Your task to perform on an android device: visit the assistant section in the google photos Image 0: 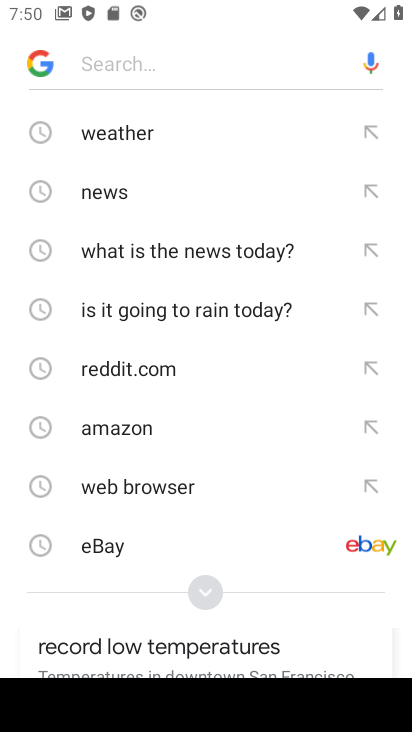
Step 0: press home button
Your task to perform on an android device: visit the assistant section in the google photos Image 1: 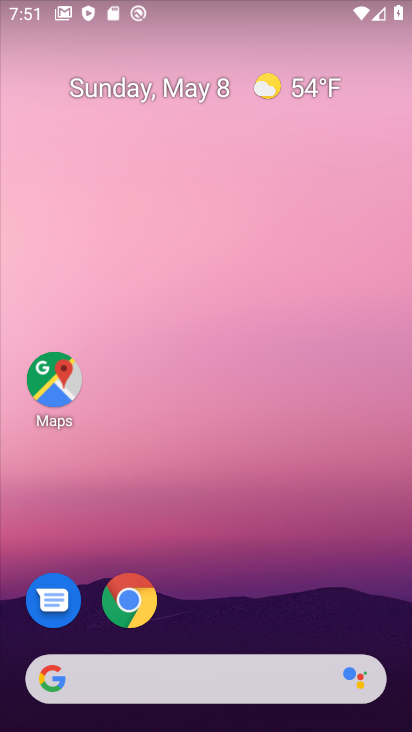
Step 1: drag from (192, 630) to (201, 37)
Your task to perform on an android device: visit the assistant section in the google photos Image 2: 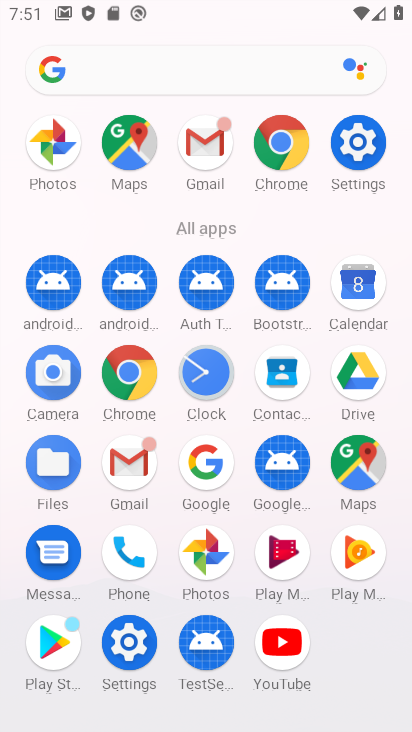
Step 2: click (39, 118)
Your task to perform on an android device: visit the assistant section in the google photos Image 3: 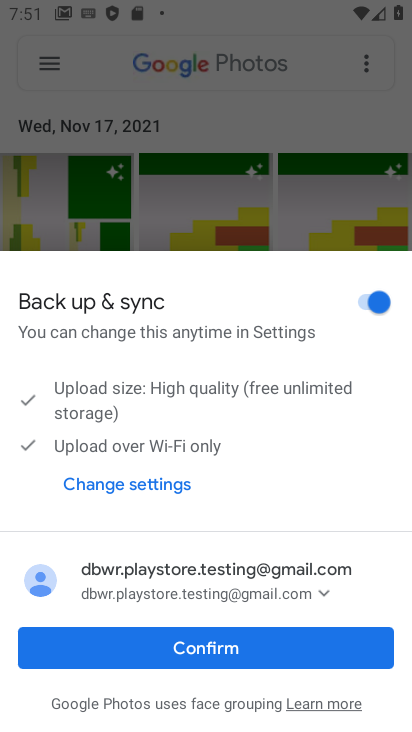
Step 3: click (260, 652)
Your task to perform on an android device: visit the assistant section in the google photos Image 4: 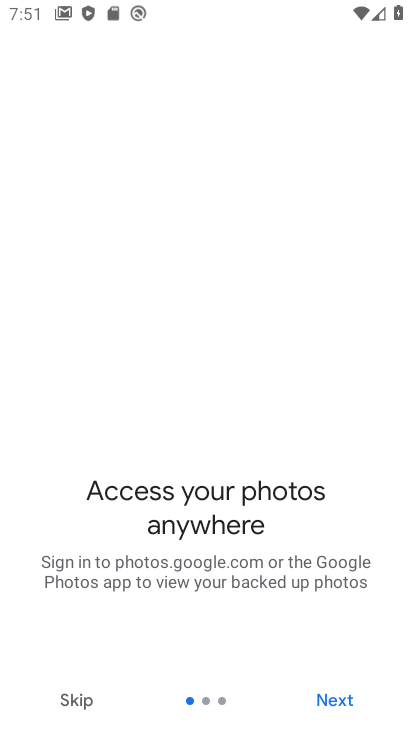
Step 4: click (315, 713)
Your task to perform on an android device: visit the assistant section in the google photos Image 5: 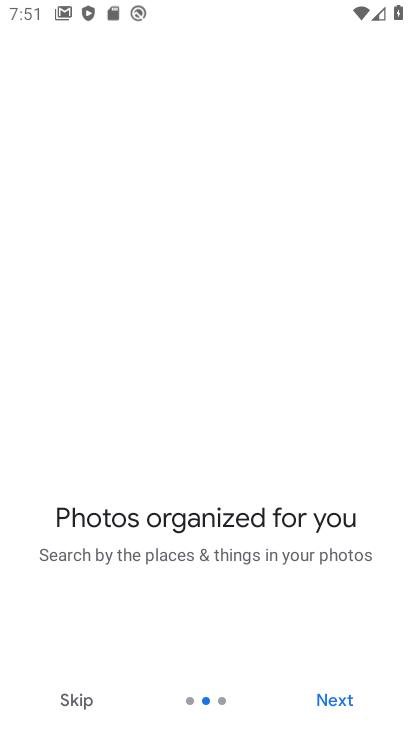
Step 5: click (315, 713)
Your task to perform on an android device: visit the assistant section in the google photos Image 6: 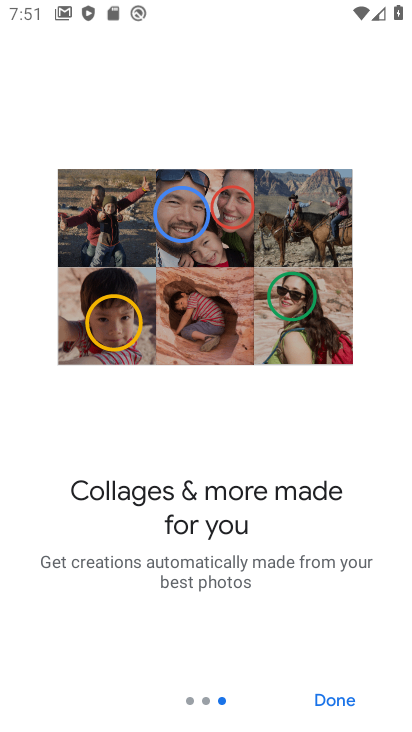
Step 6: click (315, 713)
Your task to perform on an android device: visit the assistant section in the google photos Image 7: 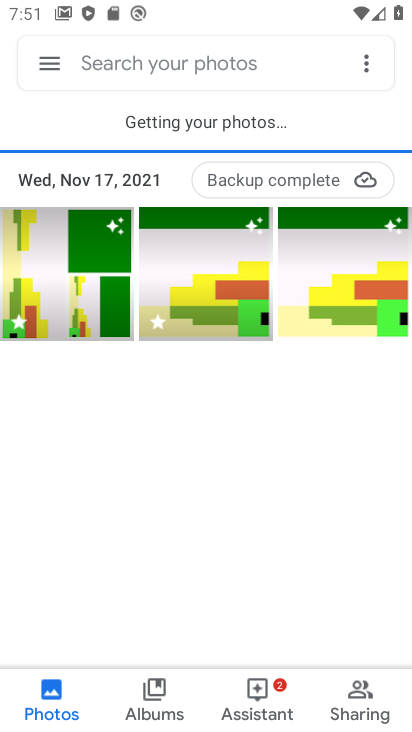
Step 7: click (267, 702)
Your task to perform on an android device: visit the assistant section in the google photos Image 8: 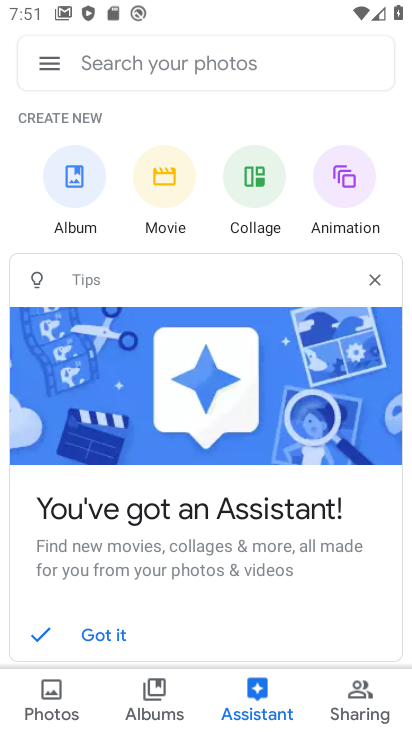
Step 8: task complete